Your task to perform on an android device: turn off translation in the chrome app Image 0: 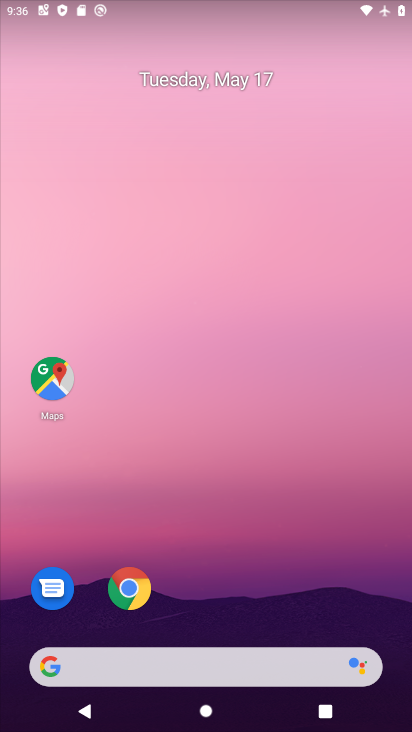
Step 0: drag from (210, 636) to (128, 80)
Your task to perform on an android device: turn off translation in the chrome app Image 1: 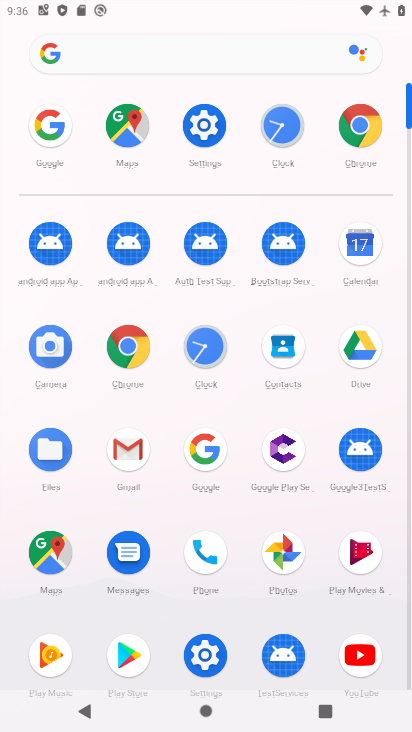
Step 1: click (118, 365)
Your task to perform on an android device: turn off translation in the chrome app Image 2: 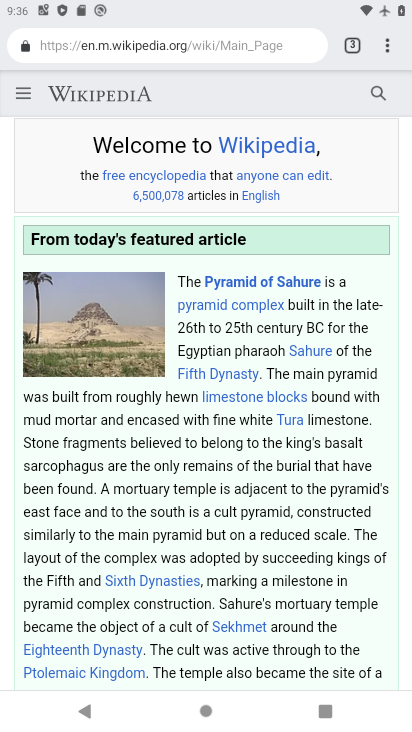
Step 2: click (389, 46)
Your task to perform on an android device: turn off translation in the chrome app Image 3: 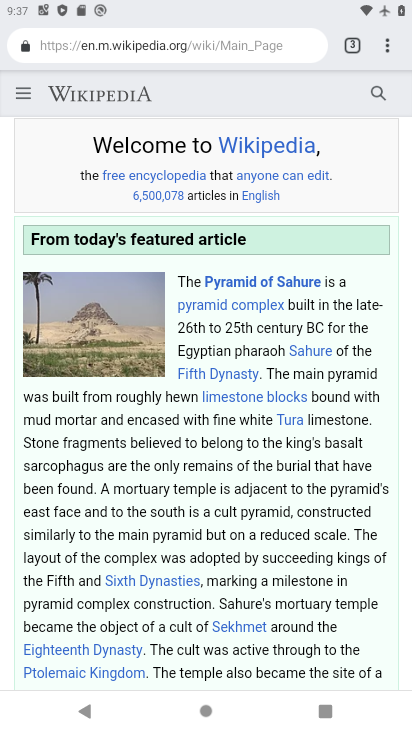
Step 3: drag from (389, 46) to (237, 502)
Your task to perform on an android device: turn off translation in the chrome app Image 4: 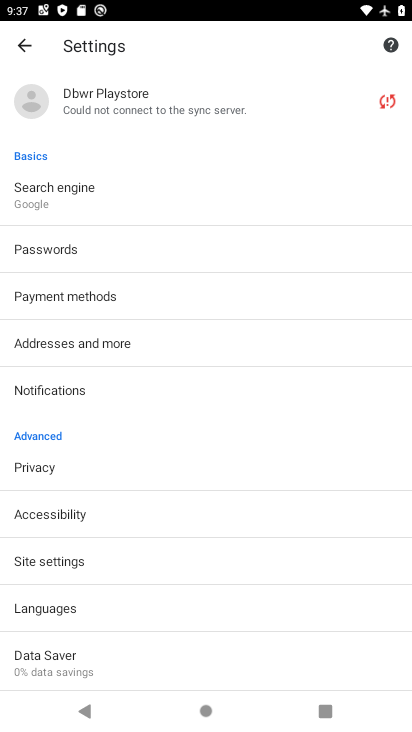
Step 4: click (55, 609)
Your task to perform on an android device: turn off translation in the chrome app Image 5: 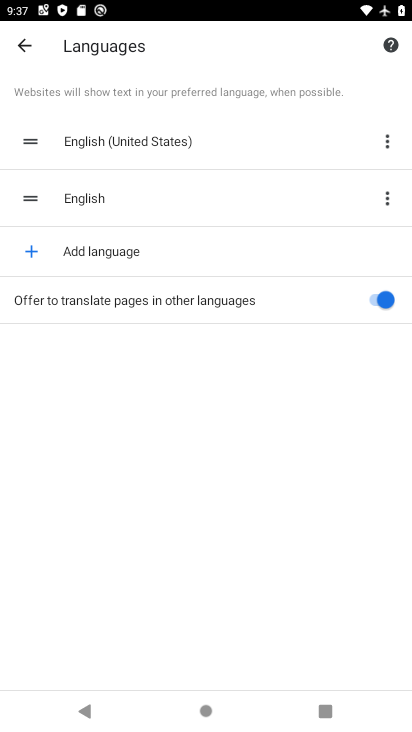
Step 5: click (366, 294)
Your task to perform on an android device: turn off translation in the chrome app Image 6: 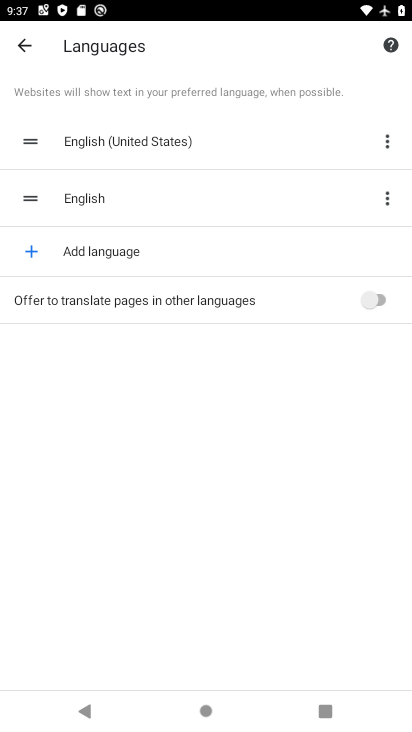
Step 6: task complete